Your task to perform on an android device: empty trash in the gmail app Image 0: 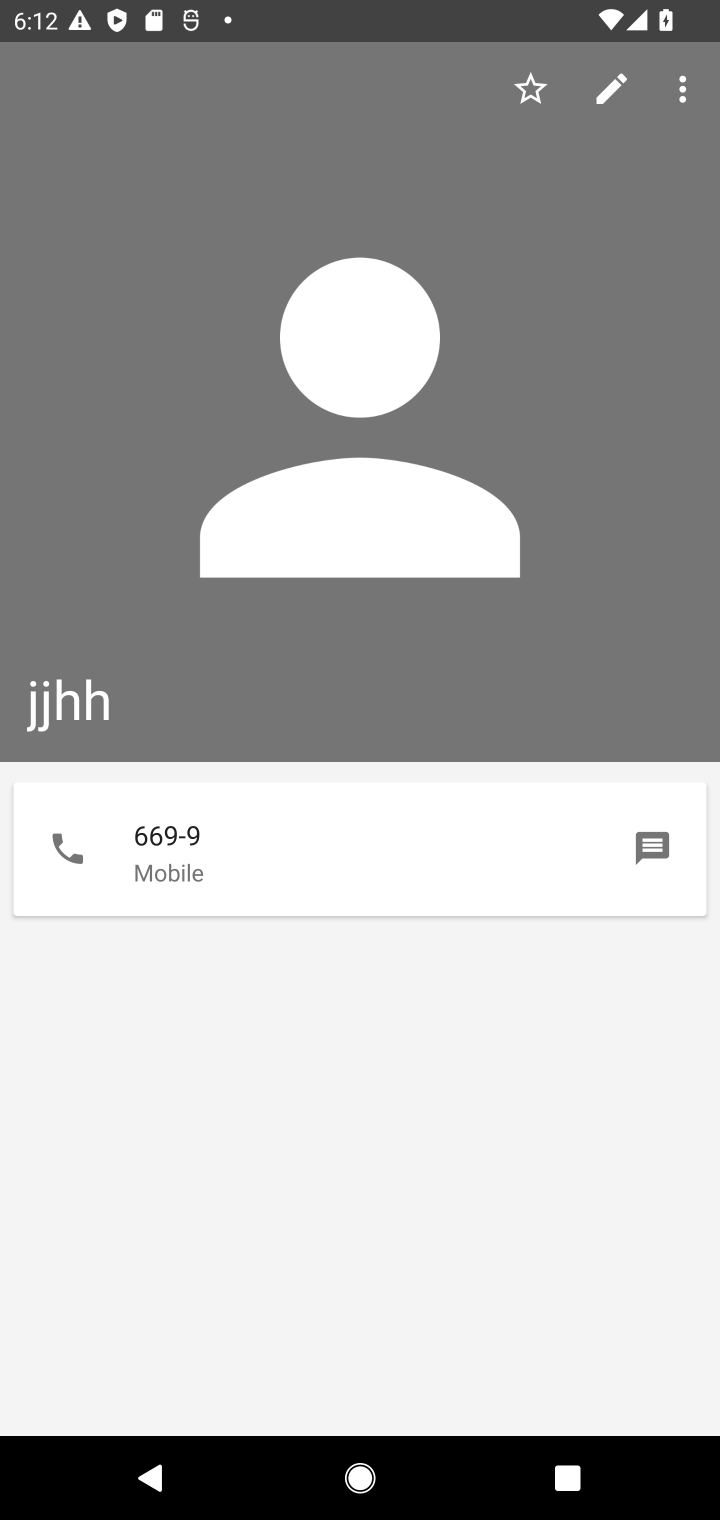
Step 0: press home button
Your task to perform on an android device: empty trash in the gmail app Image 1: 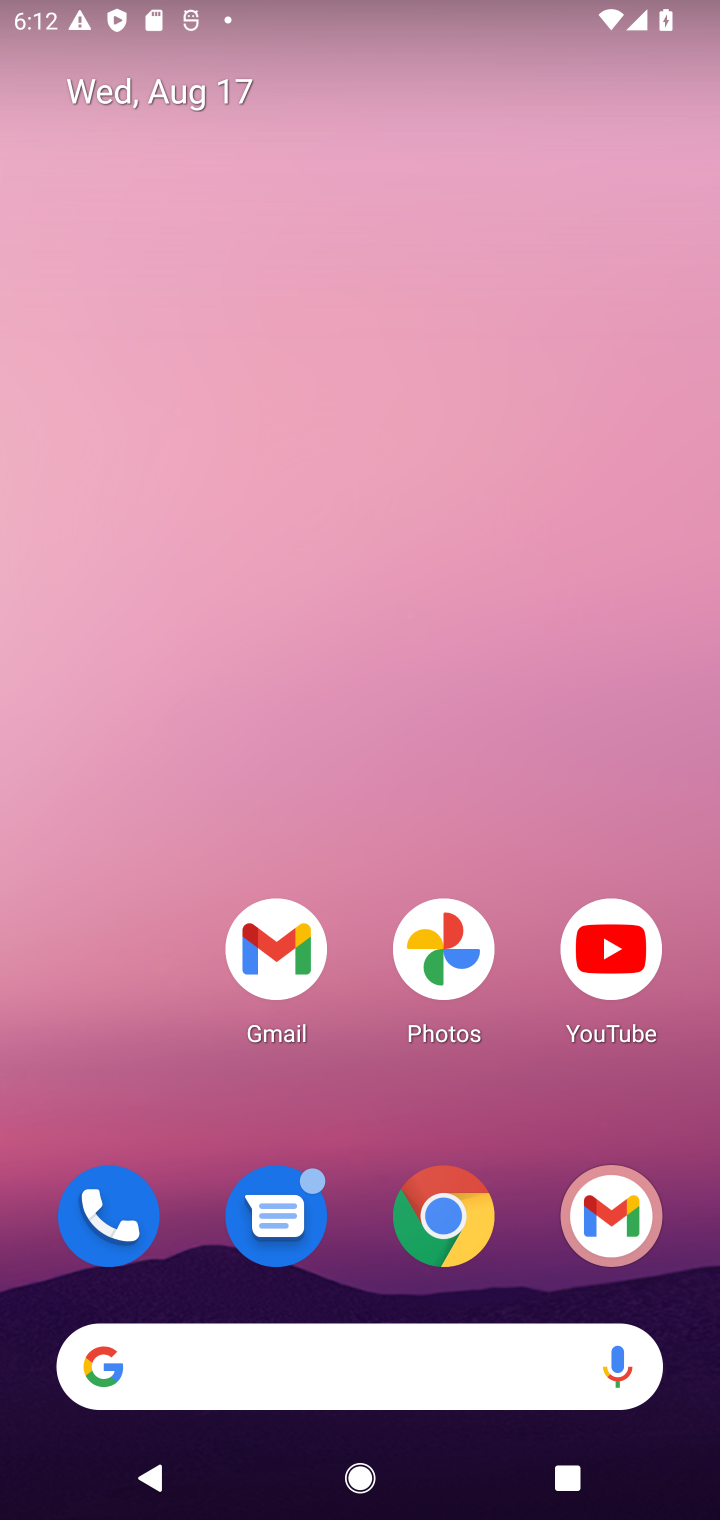
Step 1: drag from (531, 1128) to (579, 17)
Your task to perform on an android device: empty trash in the gmail app Image 2: 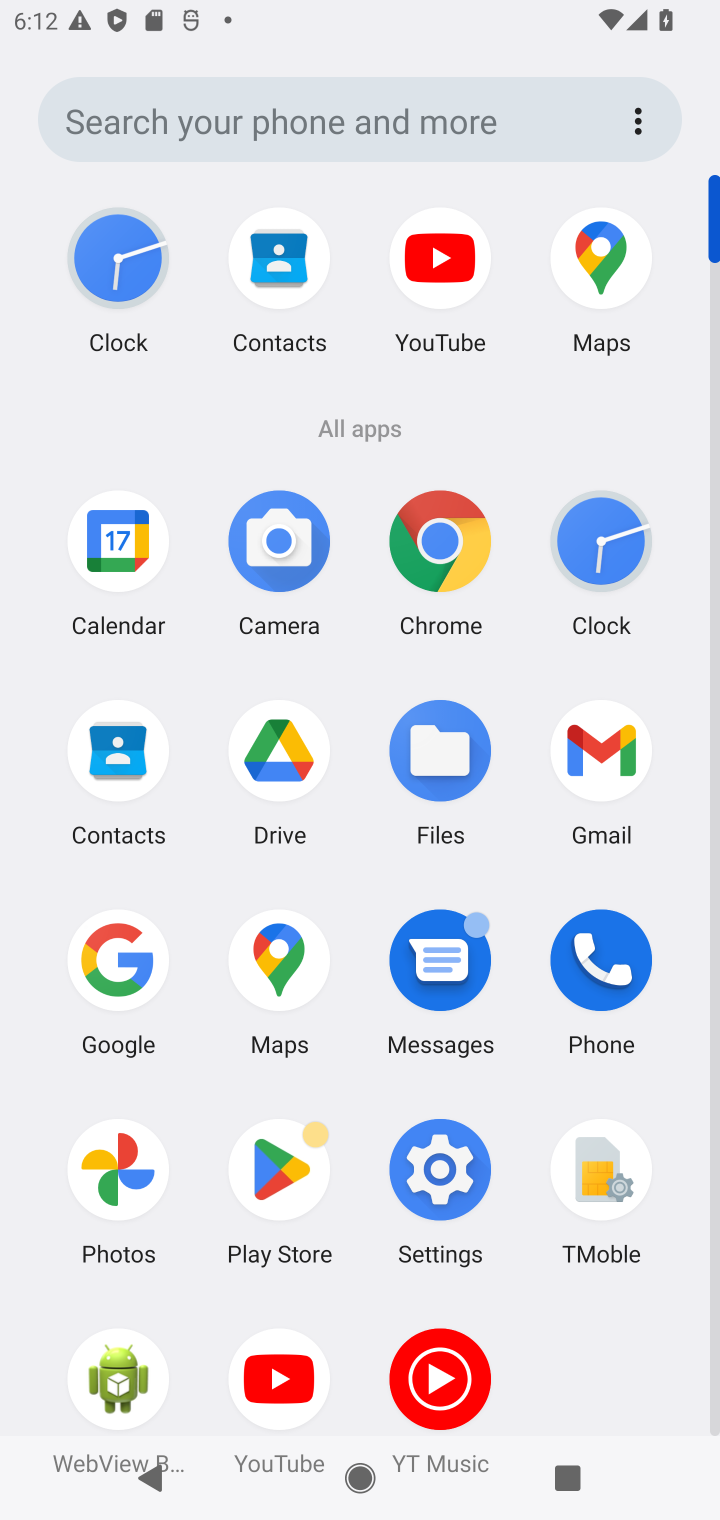
Step 2: click (583, 736)
Your task to perform on an android device: empty trash in the gmail app Image 3: 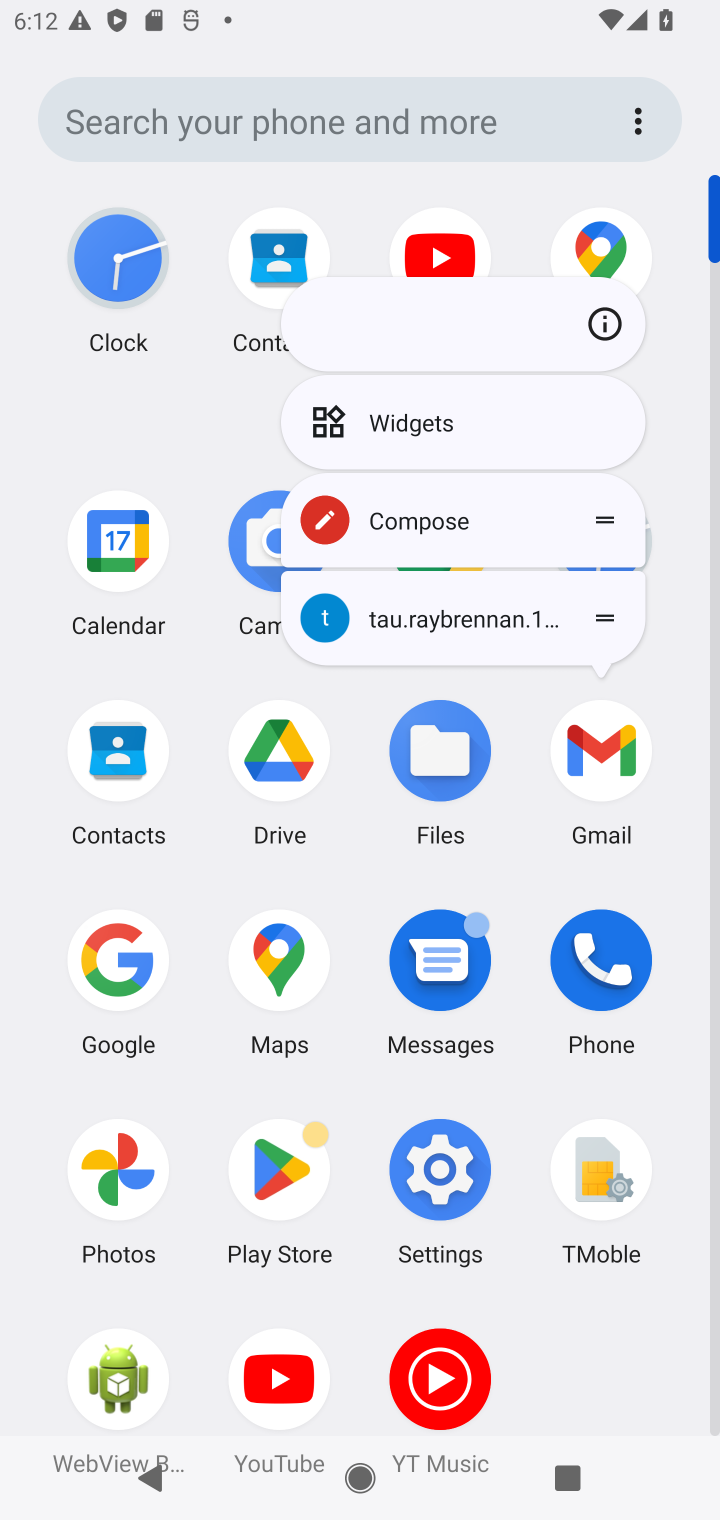
Step 3: click (593, 781)
Your task to perform on an android device: empty trash in the gmail app Image 4: 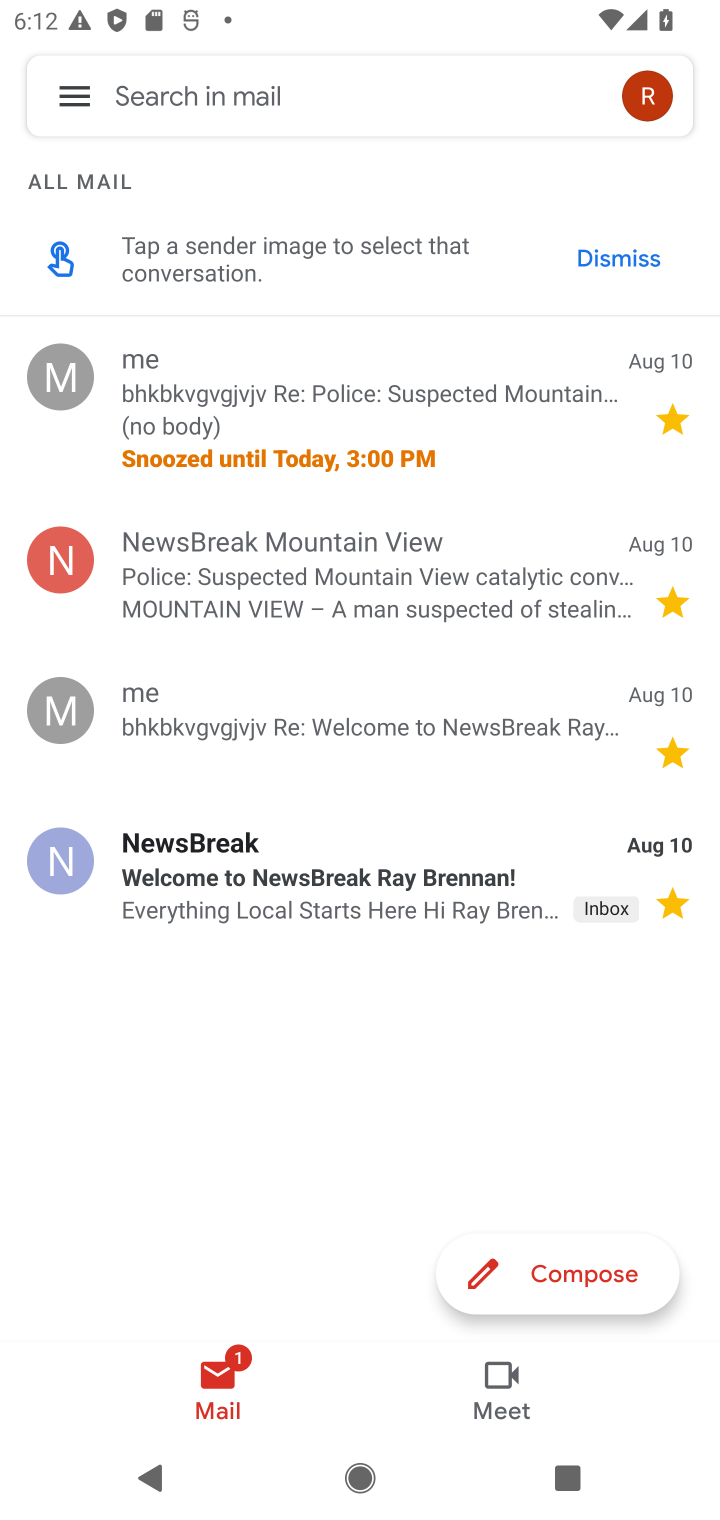
Step 4: click (63, 91)
Your task to perform on an android device: empty trash in the gmail app Image 5: 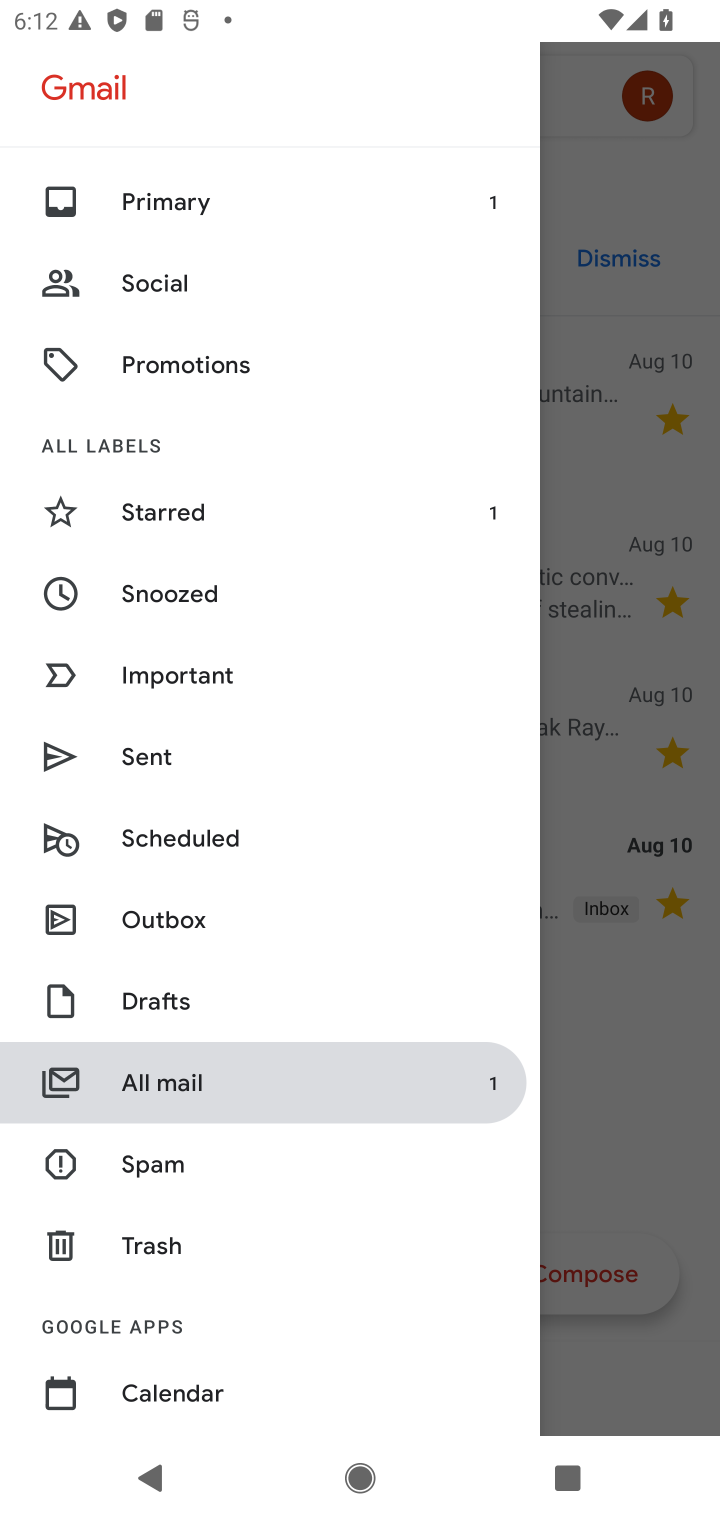
Step 5: click (161, 1234)
Your task to perform on an android device: empty trash in the gmail app Image 6: 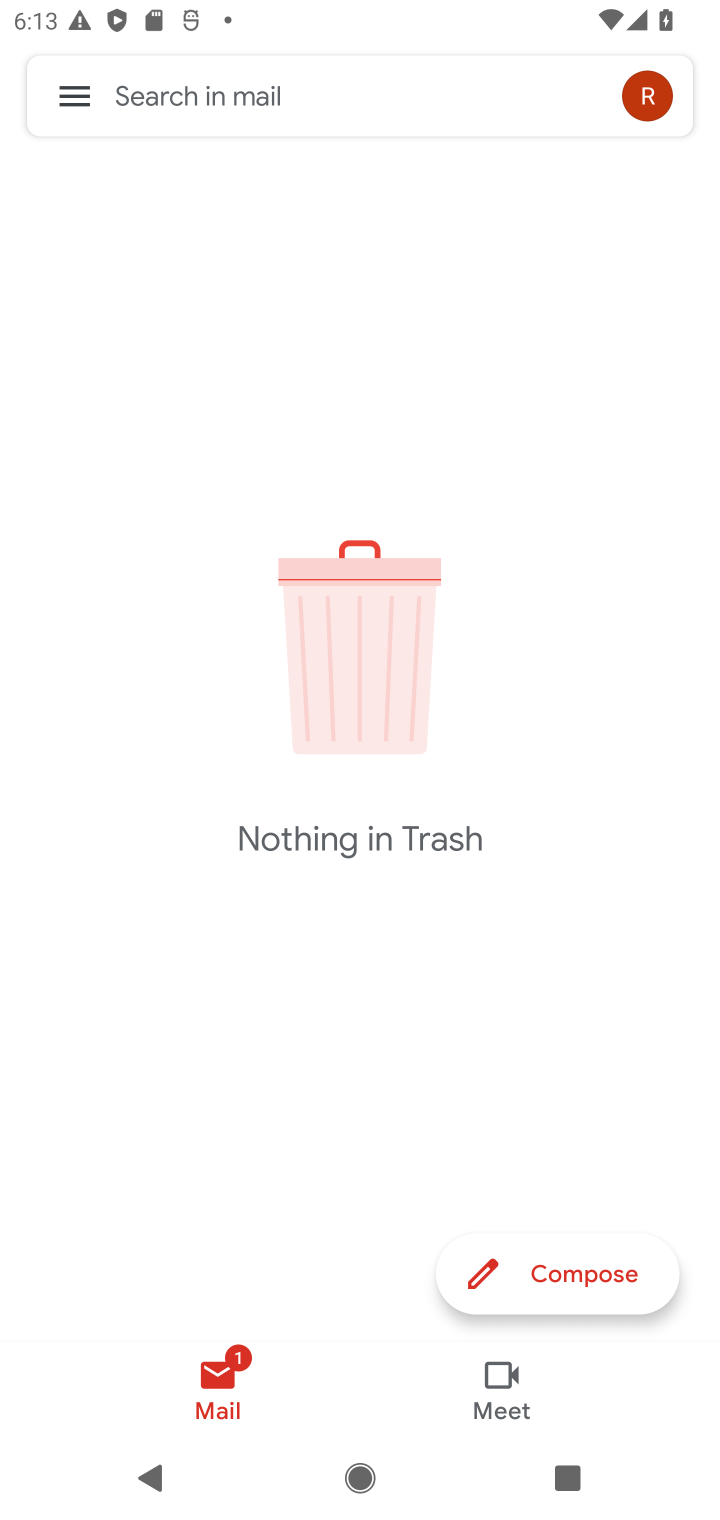
Step 6: task complete